Your task to perform on an android device: Go to ESPN.com Image 0: 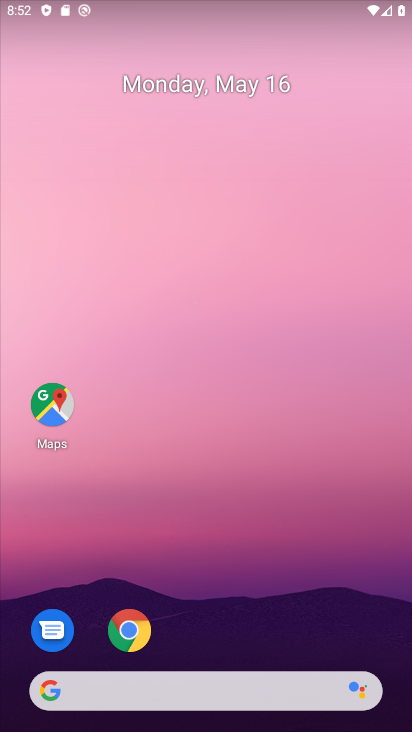
Step 0: drag from (291, 594) to (272, 17)
Your task to perform on an android device: Go to ESPN.com Image 1: 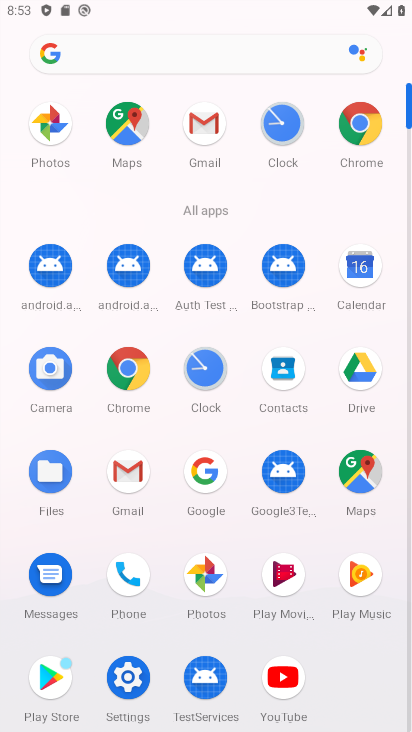
Step 1: click (353, 128)
Your task to perform on an android device: Go to ESPN.com Image 2: 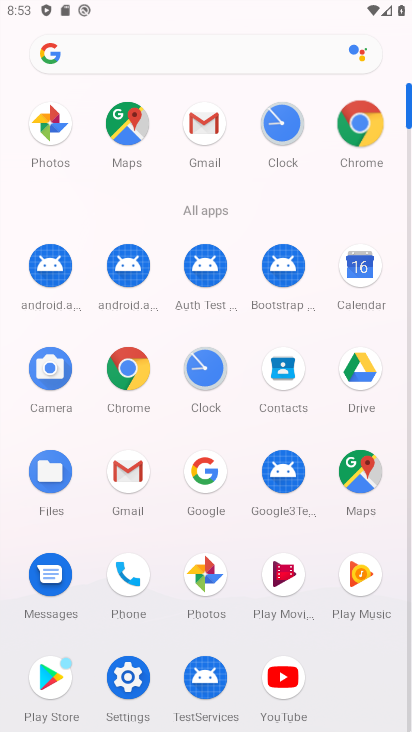
Step 2: click (351, 127)
Your task to perform on an android device: Go to ESPN.com Image 3: 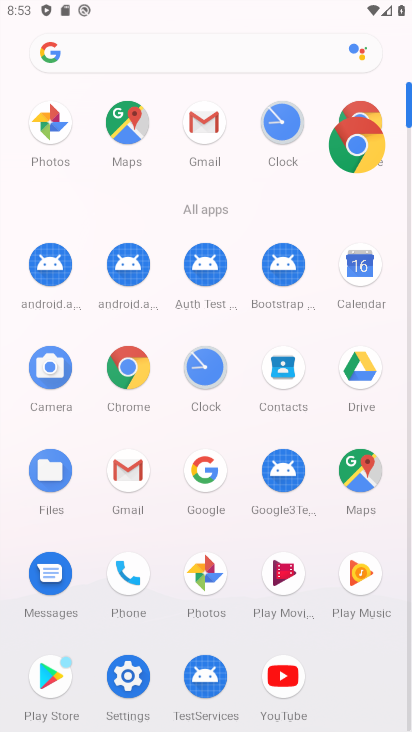
Step 3: click (352, 127)
Your task to perform on an android device: Go to ESPN.com Image 4: 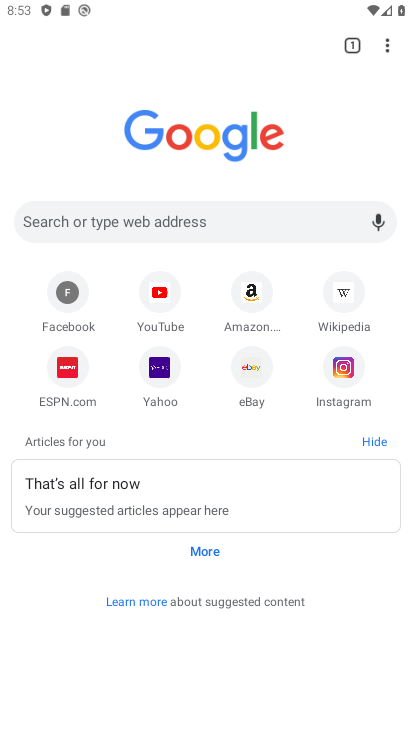
Step 4: click (77, 363)
Your task to perform on an android device: Go to ESPN.com Image 5: 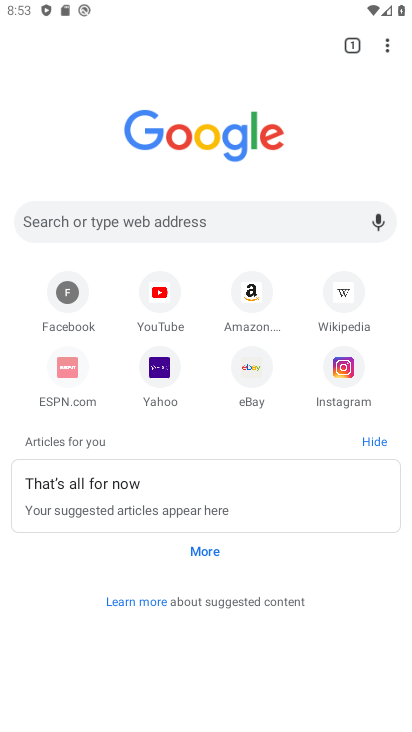
Step 5: click (77, 363)
Your task to perform on an android device: Go to ESPN.com Image 6: 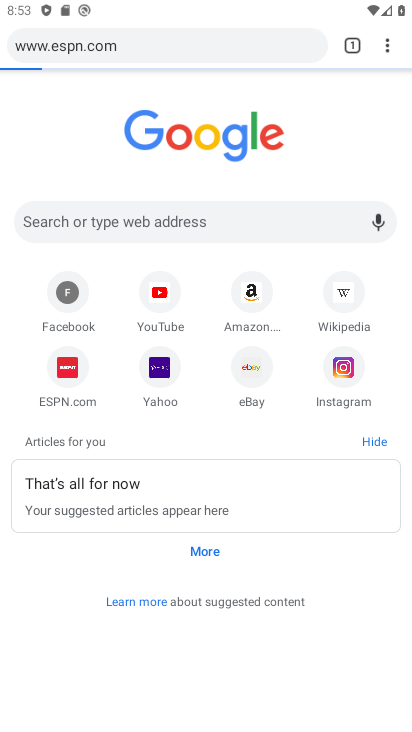
Step 6: click (77, 363)
Your task to perform on an android device: Go to ESPN.com Image 7: 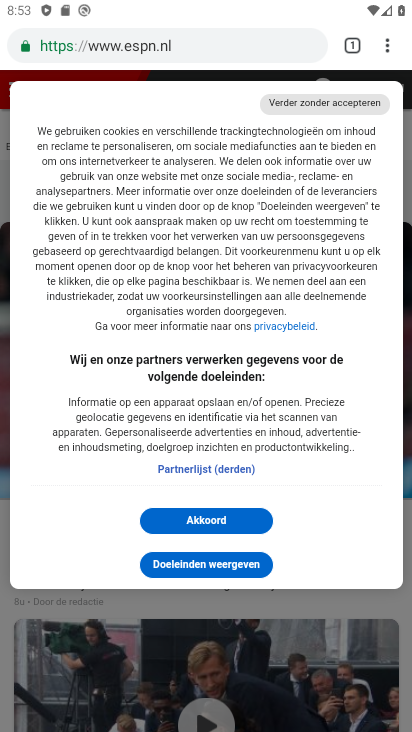
Step 7: task complete